Your task to perform on an android device: change the clock display to digital Image 0: 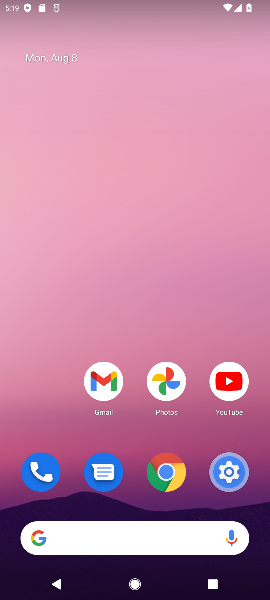
Step 0: press home button
Your task to perform on an android device: change the clock display to digital Image 1: 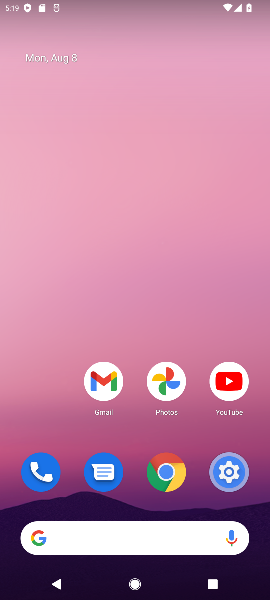
Step 1: drag from (47, 412) to (65, 47)
Your task to perform on an android device: change the clock display to digital Image 2: 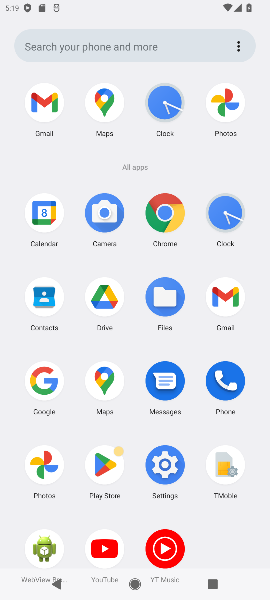
Step 2: click (227, 216)
Your task to perform on an android device: change the clock display to digital Image 3: 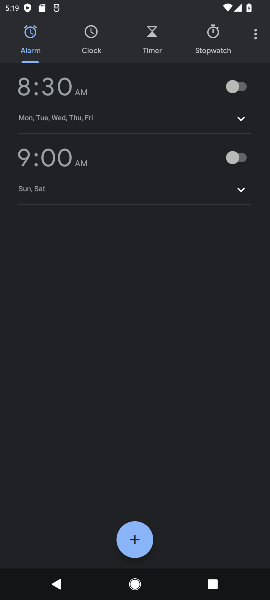
Step 3: click (254, 34)
Your task to perform on an android device: change the clock display to digital Image 4: 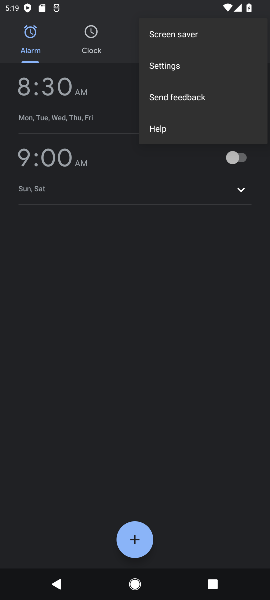
Step 4: click (182, 64)
Your task to perform on an android device: change the clock display to digital Image 5: 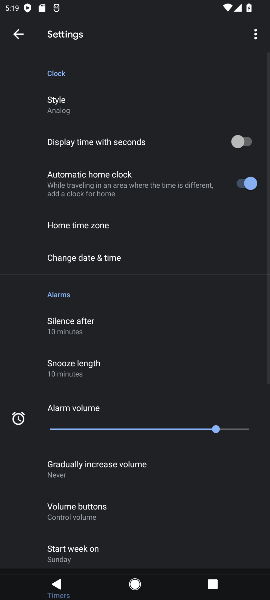
Step 5: click (82, 104)
Your task to perform on an android device: change the clock display to digital Image 6: 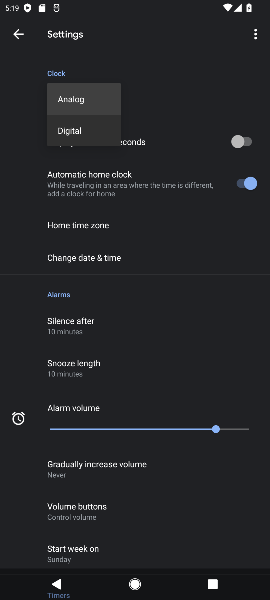
Step 6: click (74, 132)
Your task to perform on an android device: change the clock display to digital Image 7: 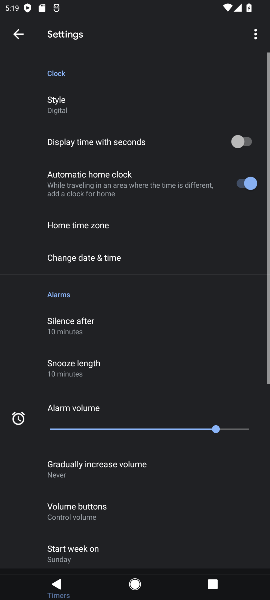
Step 7: task complete